Your task to perform on an android device: What is the recent news? Image 0: 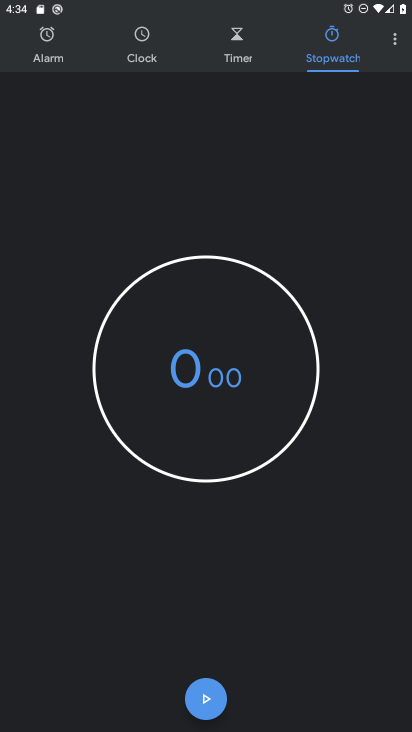
Step 0: press home button
Your task to perform on an android device: What is the recent news? Image 1: 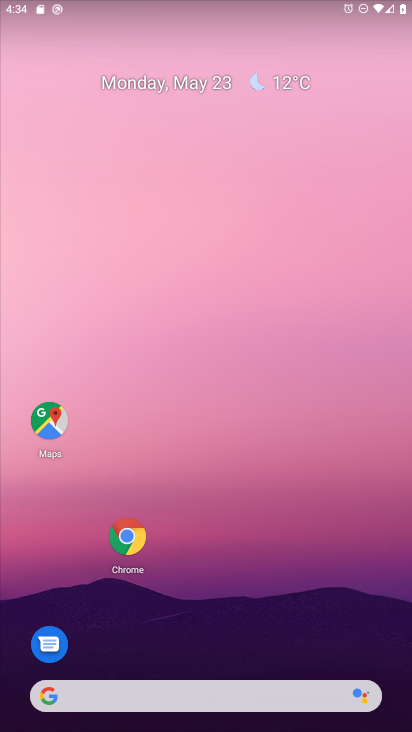
Step 1: drag from (245, 630) to (299, 168)
Your task to perform on an android device: What is the recent news? Image 2: 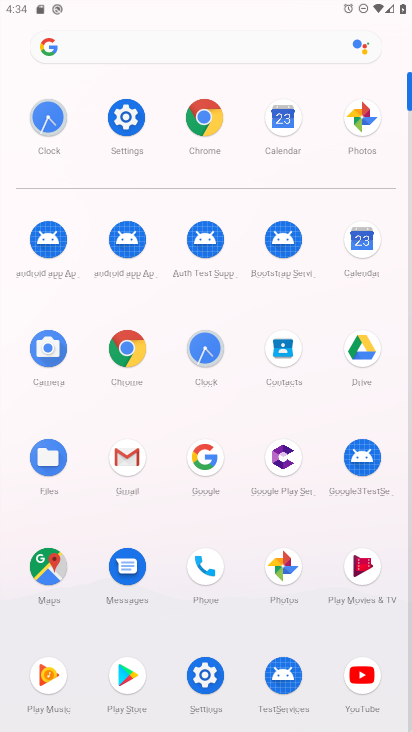
Step 2: click (130, 345)
Your task to perform on an android device: What is the recent news? Image 3: 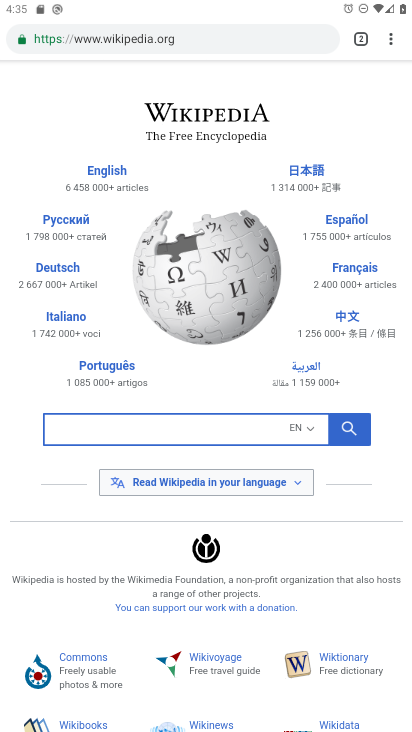
Step 3: click (180, 30)
Your task to perform on an android device: What is the recent news? Image 4: 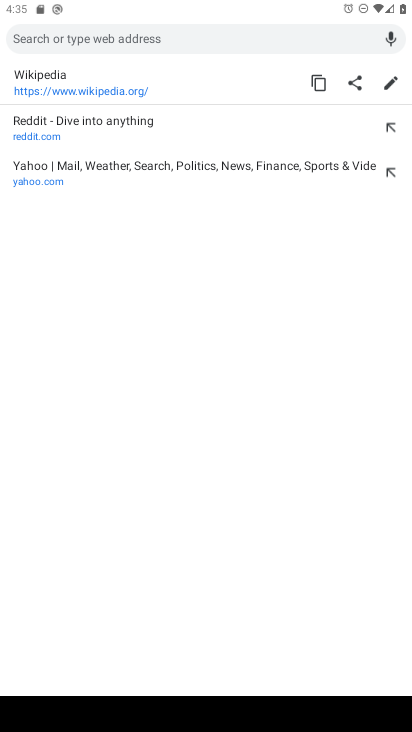
Step 4: type "news"
Your task to perform on an android device: What is the recent news? Image 5: 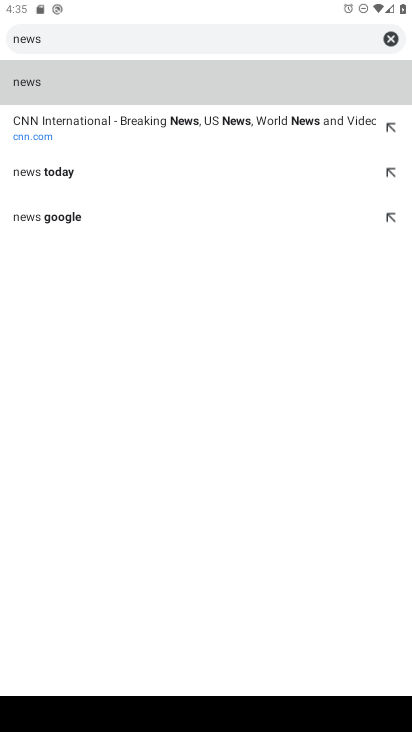
Step 5: click (27, 78)
Your task to perform on an android device: What is the recent news? Image 6: 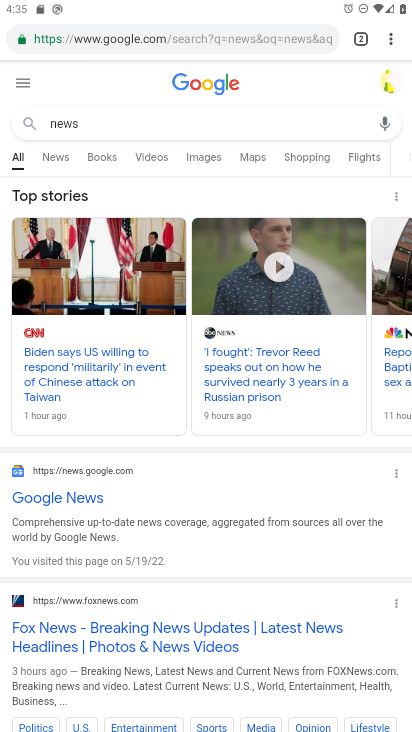
Step 6: click (60, 160)
Your task to perform on an android device: What is the recent news? Image 7: 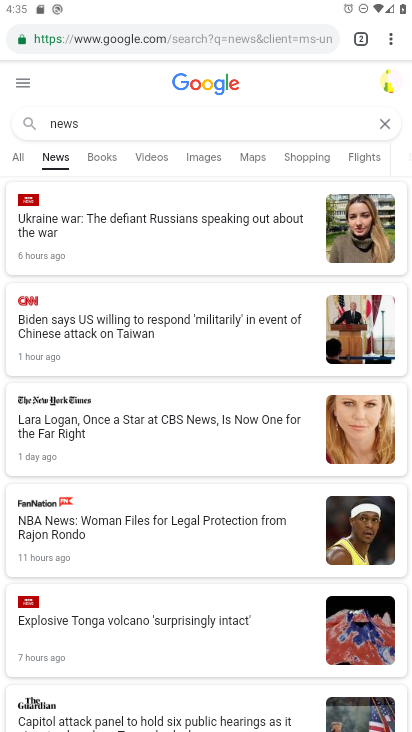
Step 7: task complete